Your task to perform on an android device: Open the calendar app, open the side menu, and click the "Day" option Image 0: 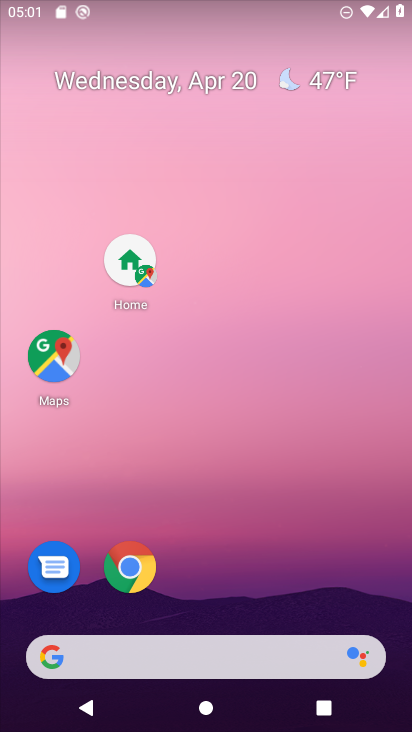
Step 0: click (164, 96)
Your task to perform on an android device: Open the calendar app, open the side menu, and click the "Day" option Image 1: 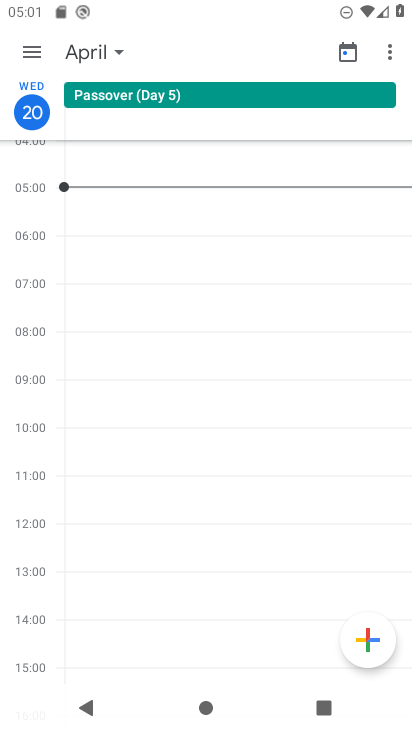
Step 1: click (27, 48)
Your task to perform on an android device: Open the calendar app, open the side menu, and click the "Day" option Image 2: 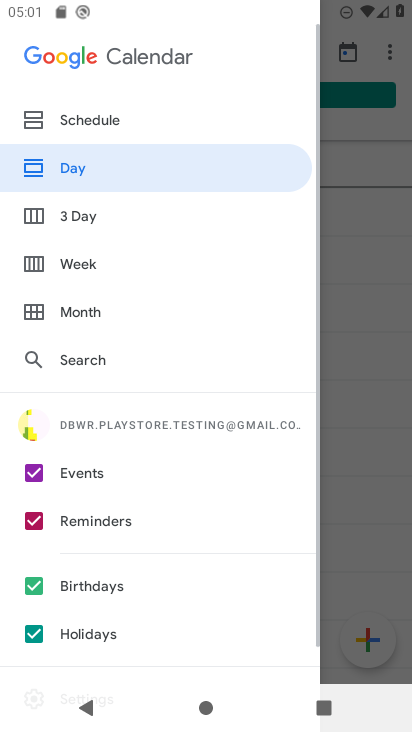
Step 2: click (157, 185)
Your task to perform on an android device: Open the calendar app, open the side menu, and click the "Day" option Image 3: 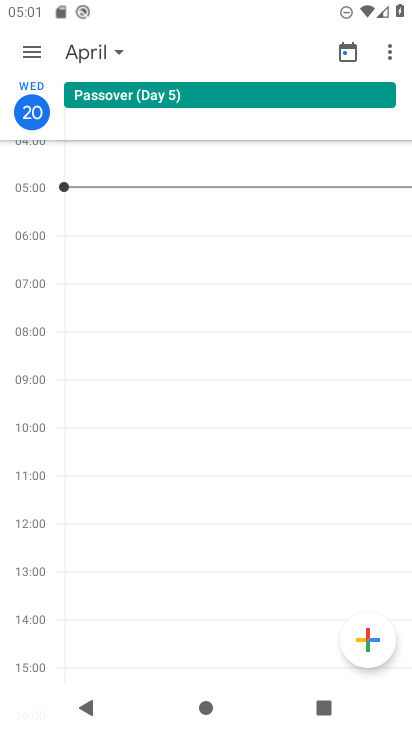
Step 3: task complete